Your task to perform on an android device: Open the map Image 0: 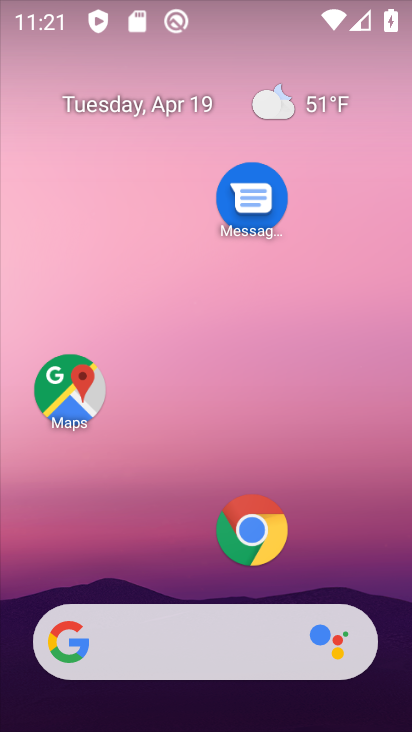
Step 0: click (84, 379)
Your task to perform on an android device: Open the map Image 1: 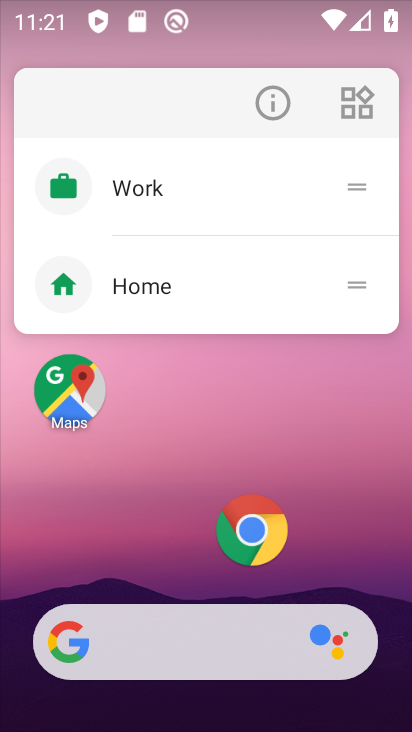
Step 1: click (75, 396)
Your task to perform on an android device: Open the map Image 2: 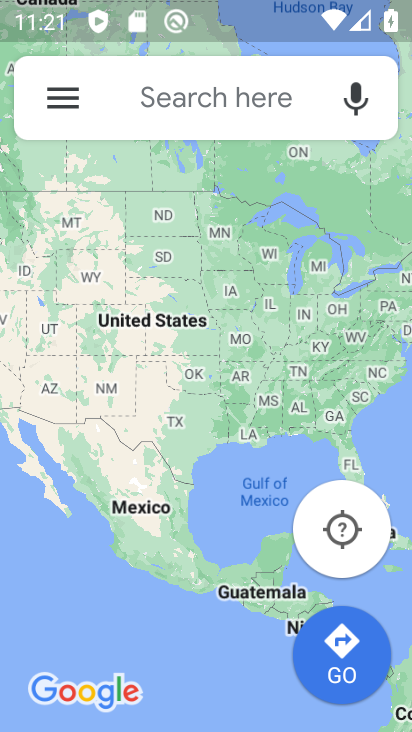
Step 2: task complete